Your task to perform on an android device: Search for vegetarian restaurants on Maps Image 0: 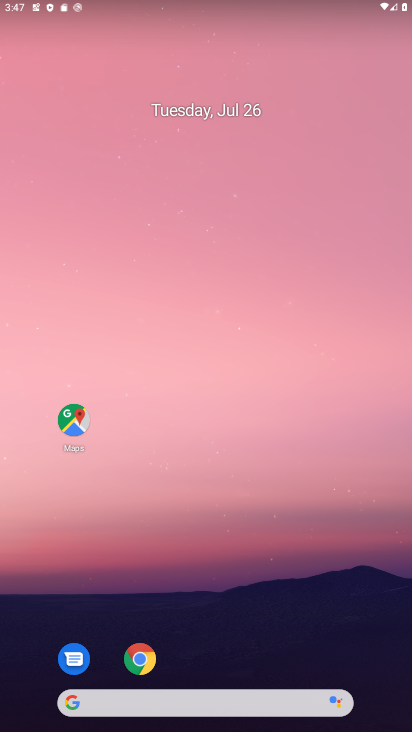
Step 0: click (78, 424)
Your task to perform on an android device: Search for vegetarian restaurants on Maps Image 1: 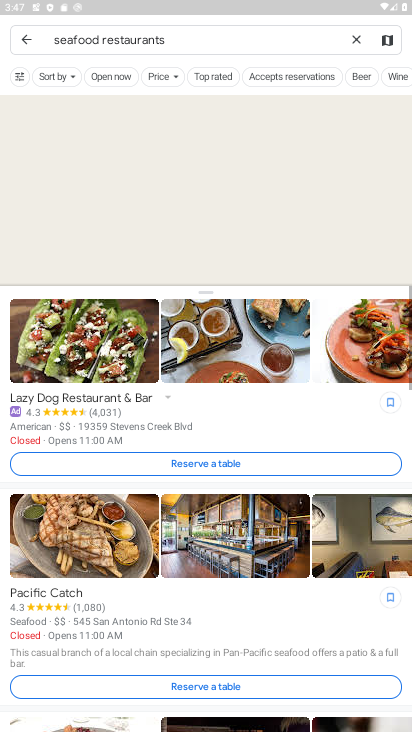
Step 1: click (354, 33)
Your task to perform on an android device: Search for vegetarian restaurants on Maps Image 2: 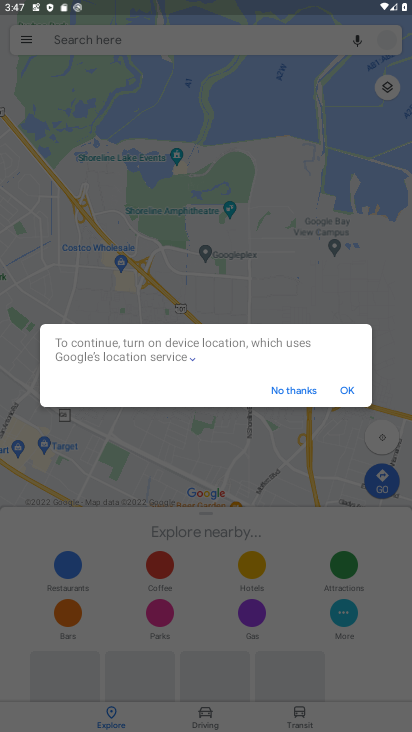
Step 2: click (302, 389)
Your task to perform on an android device: Search for vegetarian restaurants on Maps Image 3: 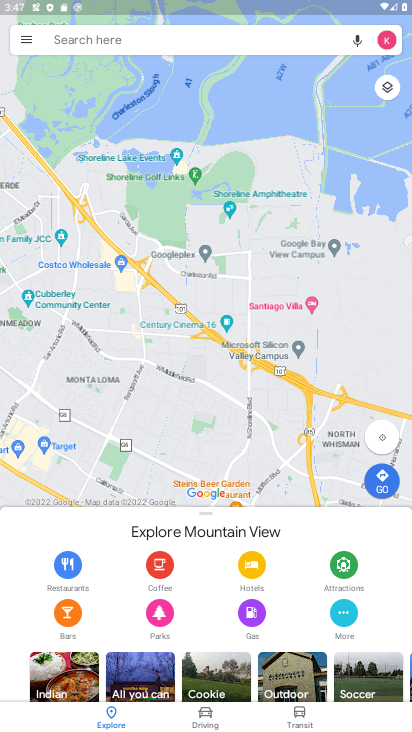
Step 3: click (143, 43)
Your task to perform on an android device: Search for vegetarian restaurants on Maps Image 4: 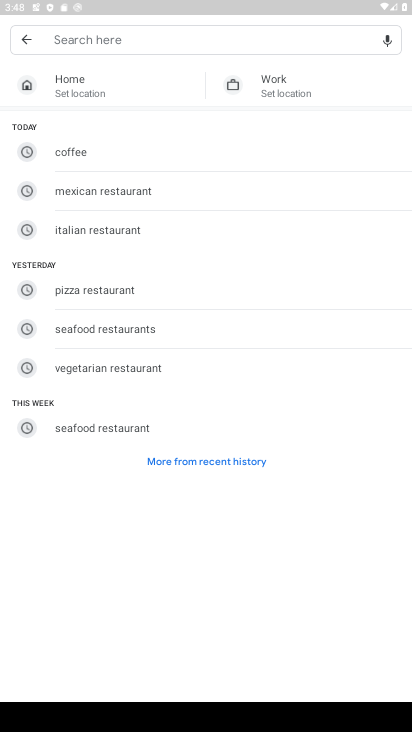
Step 4: type "vegetarian restaurants"
Your task to perform on an android device: Search for vegetarian restaurants on Maps Image 5: 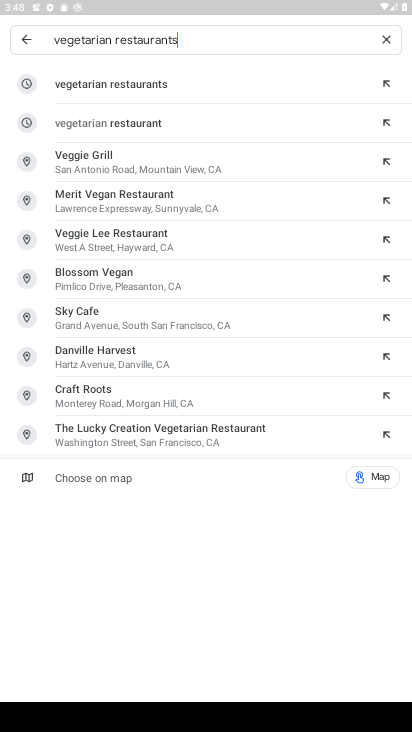
Step 5: click (244, 83)
Your task to perform on an android device: Search for vegetarian restaurants on Maps Image 6: 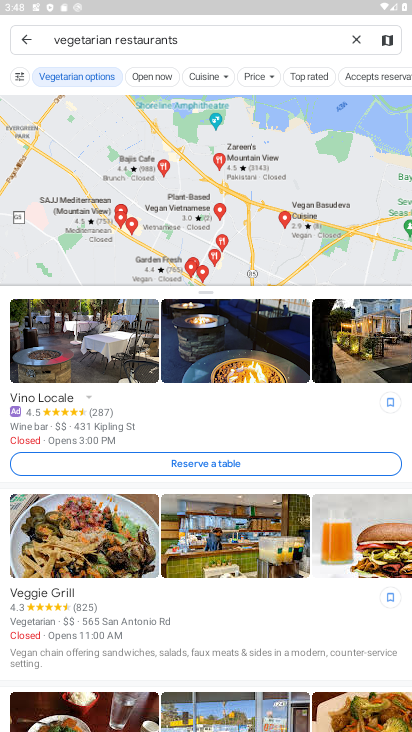
Step 6: task complete